Your task to perform on an android device: Clear the shopping cart on walmart. Search for "panasonic triple a" on walmart, select the first entry, add it to the cart, then select checkout. Image 0: 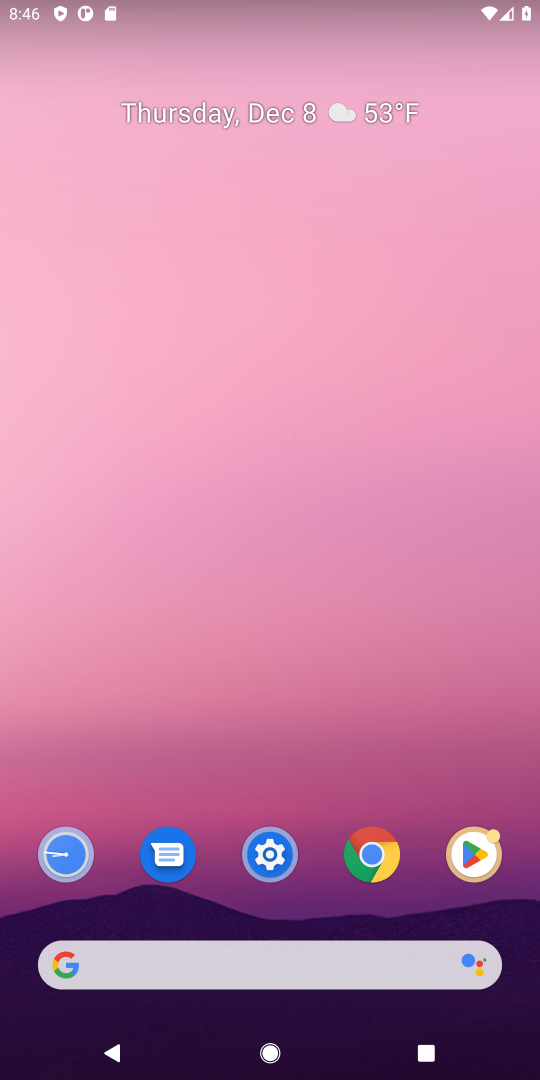
Step 0: press home button
Your task to perform on an android device: Clear the shopping cart on walmart. Search for "panasonic triple a" on walmart, select the first entry, add it to the cart, then select checkout. Image 1: 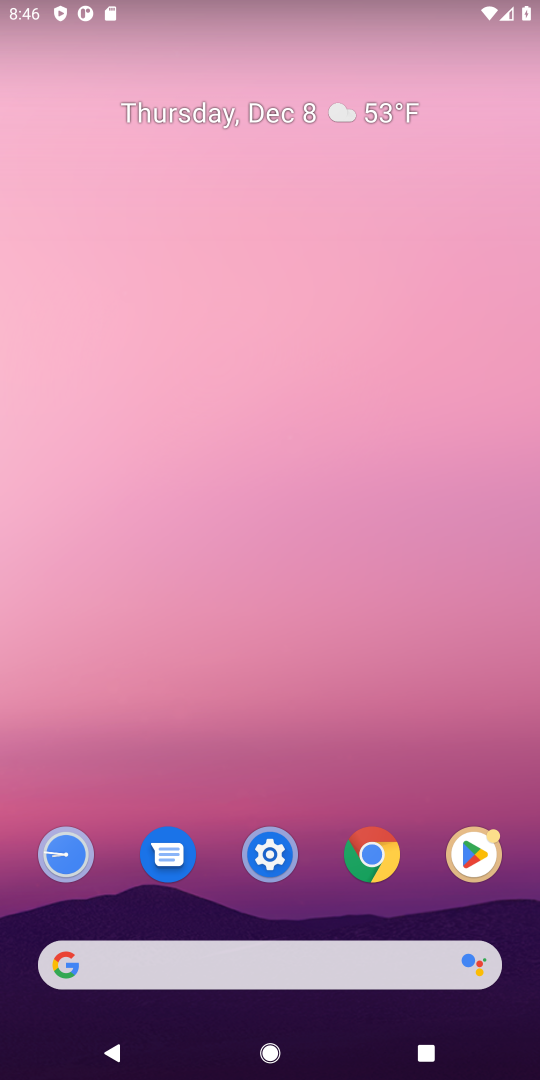
Step 1: click (85, 959)
Your task to perform on an android device: Clear the shopping cart on walmart. Search for "panasonic triple a" on walmart, select the first entry, add it to the cart, then select checkout. Image 2: 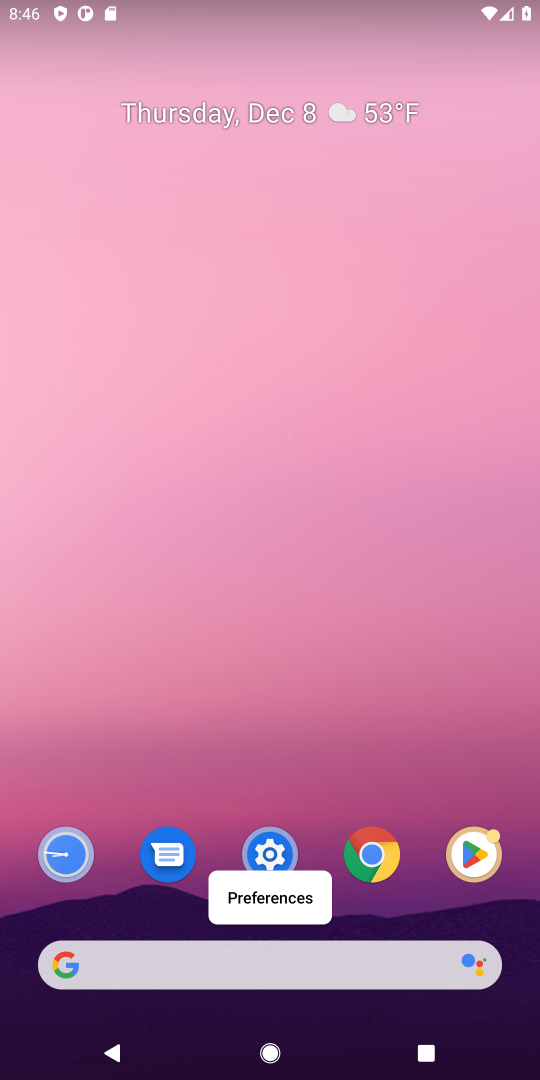
Step 2: click (102, 958)
Your task to perform on an android device: Clear the shopping cart on walmart. Search for "panasonic triple a" on walmart, select the first entry, add it to the cart, then select checkout. Image 3: 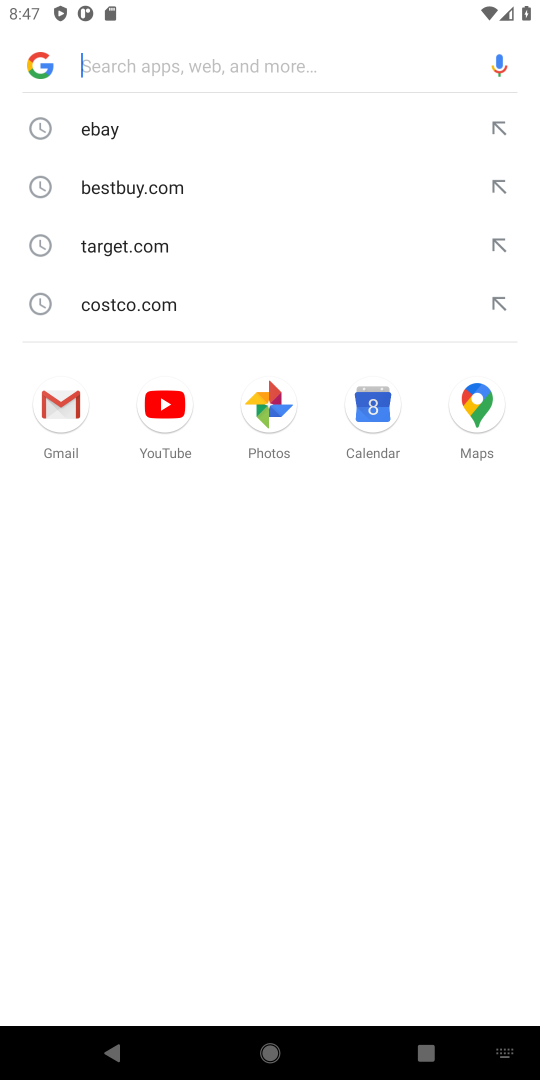
Step 3: press enter
Your task to perform on an android device: Clear the shopping cart on walmart. Search for "panasonic triple a" on walmart, select the first entry, add it to the cart, then select checkout. Image 4: 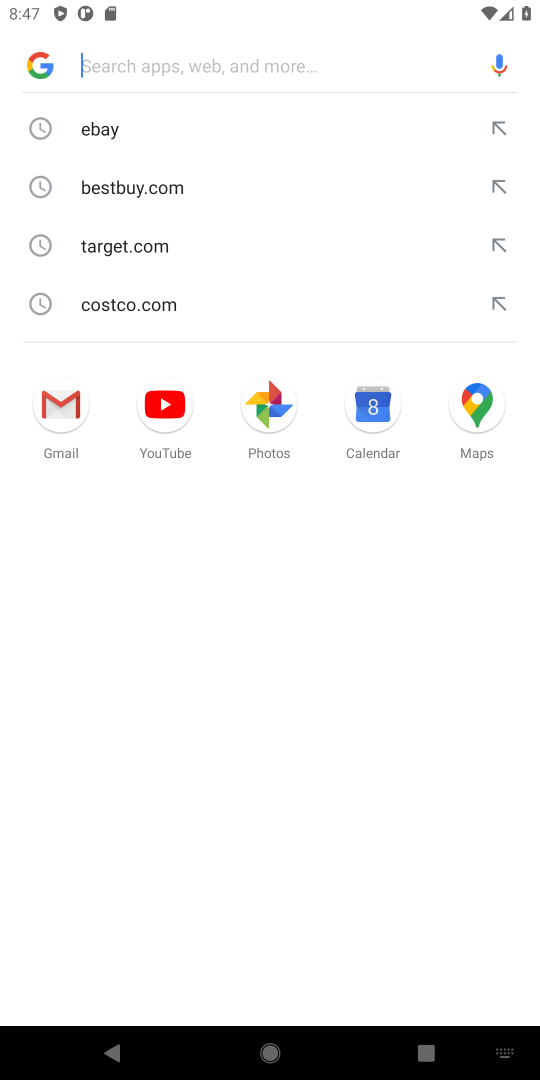
Step 4: type "walmart"
Your task to perform on an android device: Clear the shopping cart on walmart. Search for "panasonic triple a" on walmart, select the first entry, add it to the cart, then select checkout. Image 5: 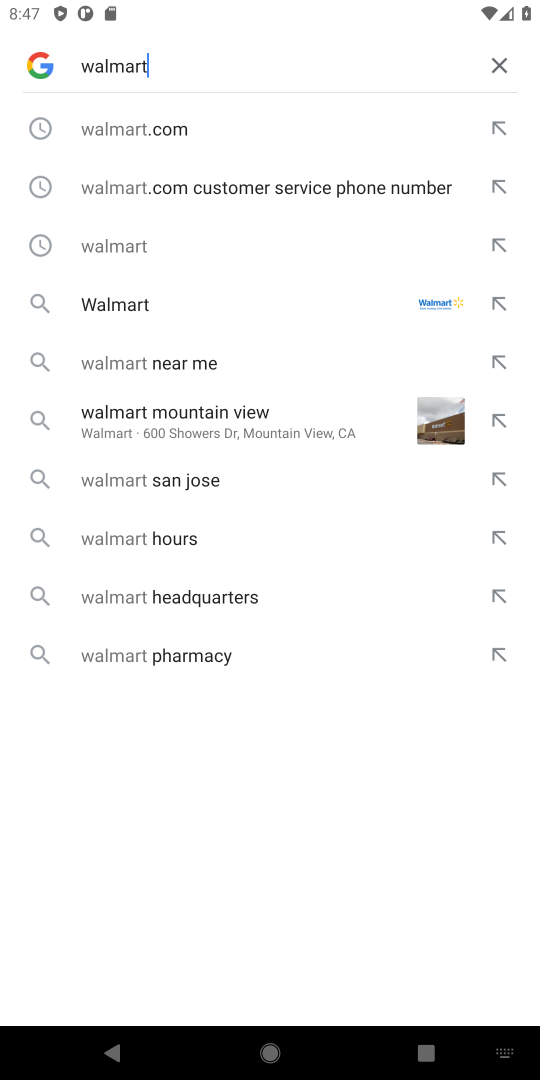
Step 5: press enter
Your task to perform on an android device: Clear the shopping cart on walmart. Search for "panasonic triple a" on walmart, select the first entry, add it to the cart, then select checkout. Image 6: 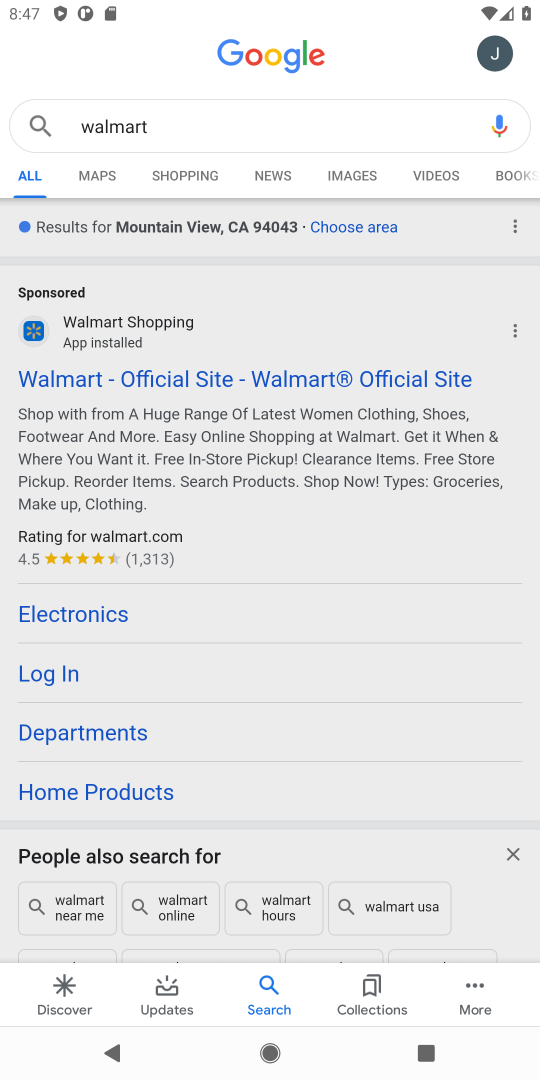
Step 6: click (159, 385)
Your task to perform on an android device: Clear the shopping cart on walmart. Search for "panasonic triple a" on walmart, select the first entry, add it to the cart, then select checkout. Image 7: 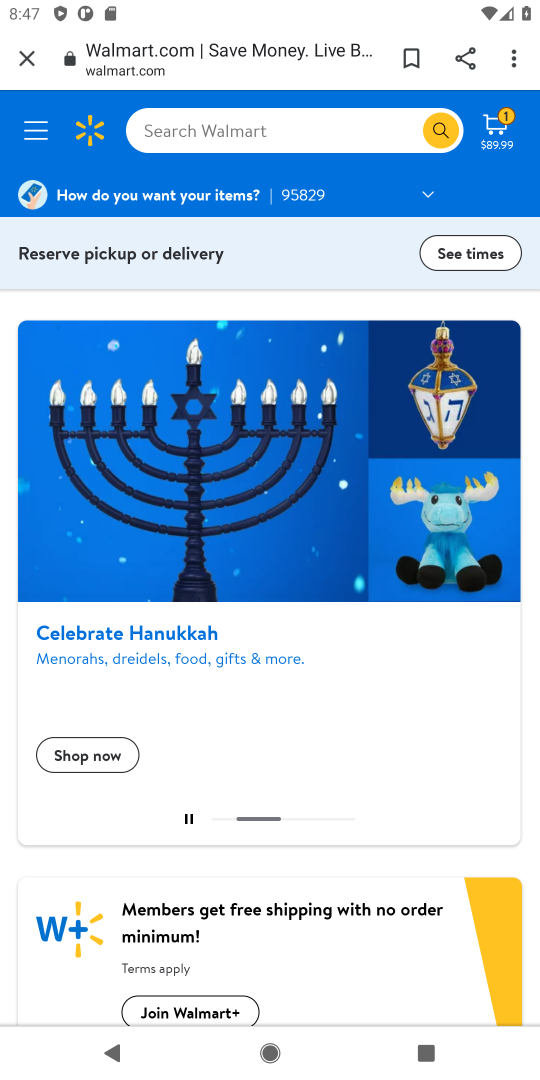
Step 7: click (500, 116)
Your task to perform on an android device: Clear the shopping cart on walmart. Search for "panasonic triple a" on walmart, select the first entry, add it to the cart, then select checkout. Image 8: 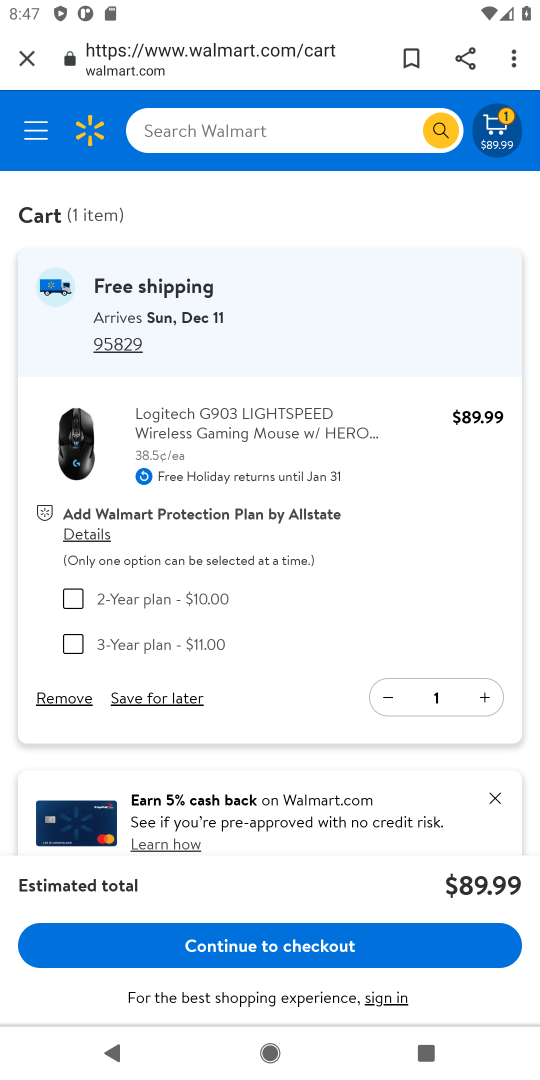
Step 8: click (60, 698)
Your task to perform on an android device: Clear the shopping cart on walmart. Search for "panasonic triple a" on walmart, select the first entry, add it to the cart, then select checkout. Image 9: 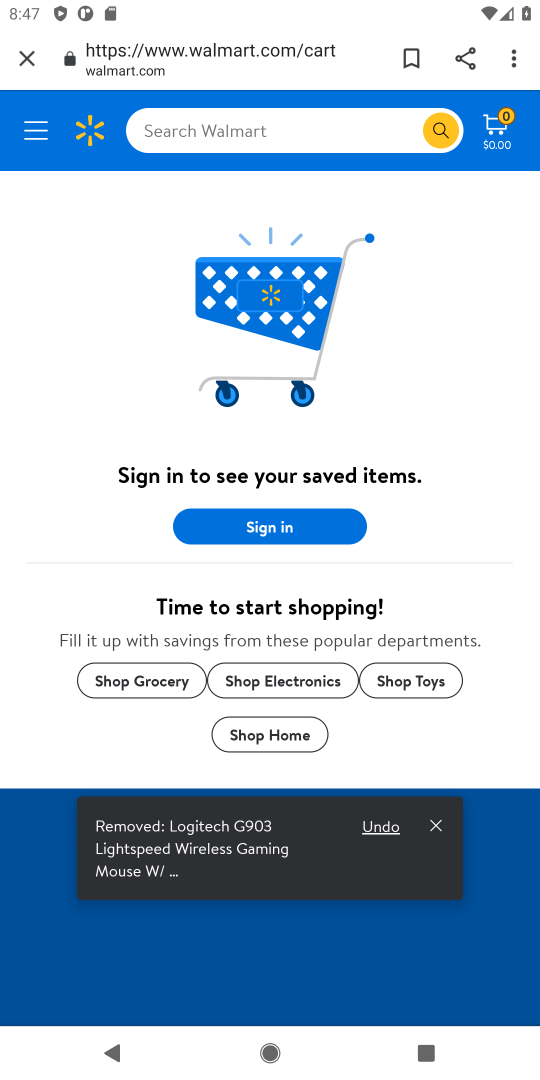
Step 9: click (181, 131)
Your task to perform on an android device: Clear the shopping cart on walmart. Search for "panasonic triple a" on walmart, select the first entry, add it to the cart, then select checkout. Image 10: 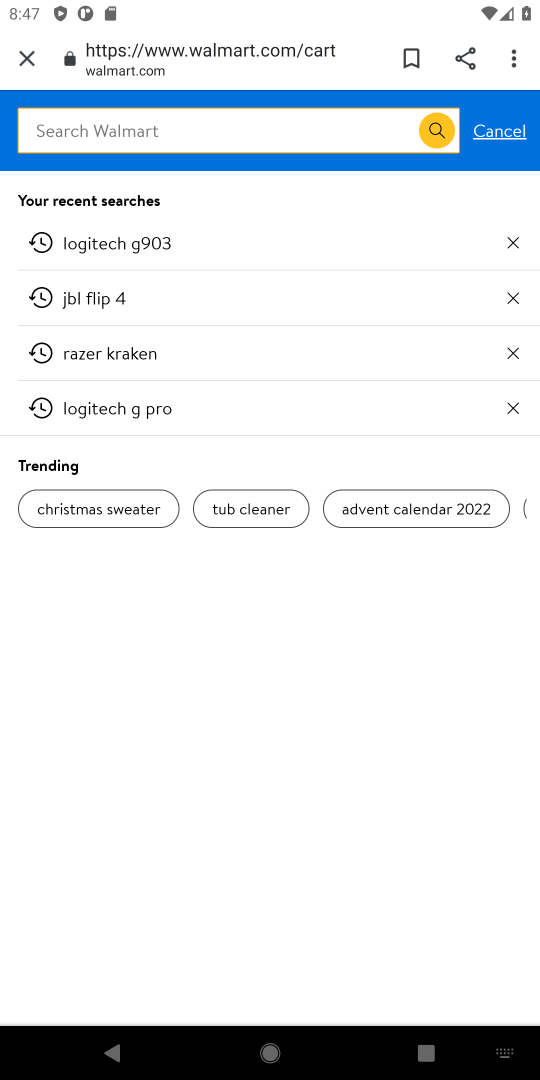
Step 10: type "panasonic triple a""
Your task to perform on an android device: Clear the shopping cart on walmart. Search for "panasonic triple a" on walmart, select the first entry, add it to the cart, then select checkout. Image 11: 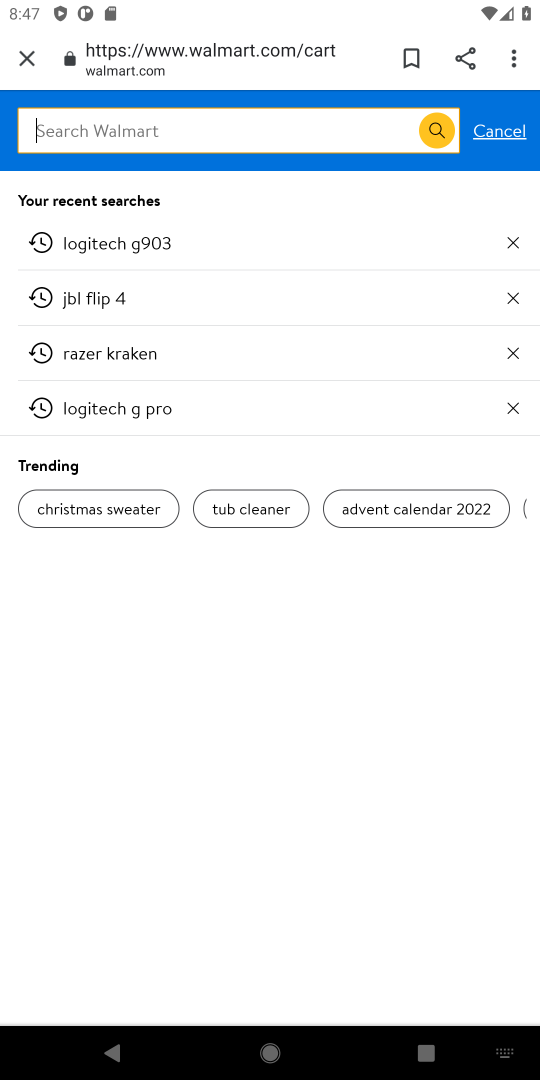
Step 11: press enter
Your task to perform on an android device: Clear the shopping cart on walmart. Search for "panasonic triple a" on walmart, select the first entry, add it to the cart, then select checkout. Image 12: 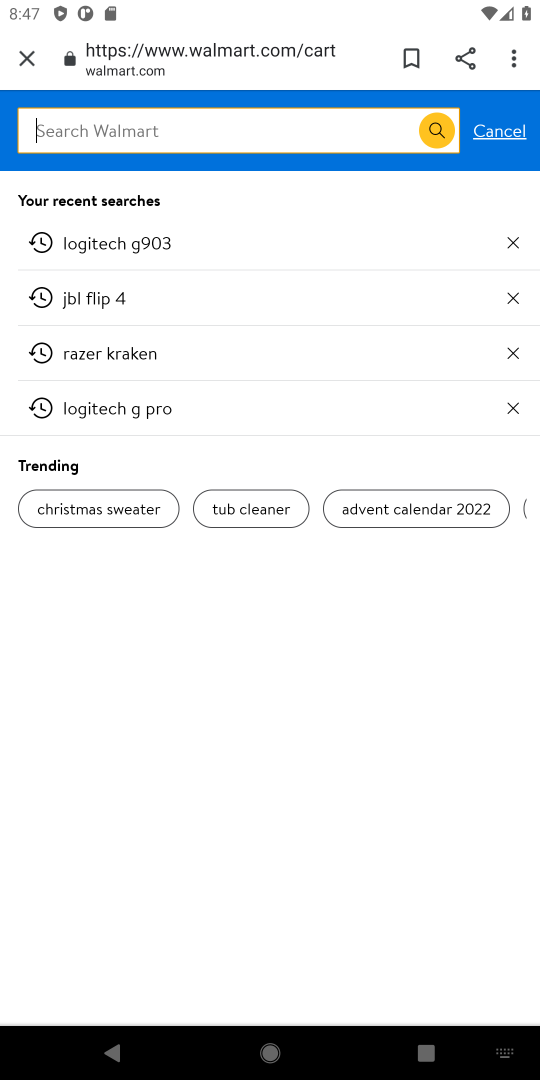
Step 12: press enter
Your task to perform on an android device: Clear the shopping cart on walmart. Search for "panasonic triple a" on walmart, select the first entry, add it to the cart, then select checkout. Image 13: 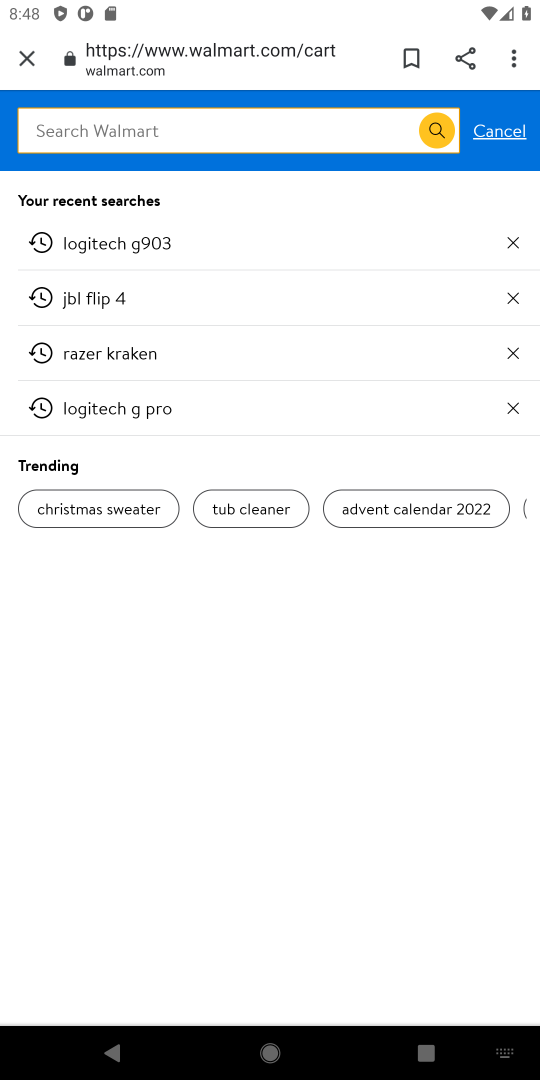
Step 13: type "panasonic triple a""
Your task to perform on an android device: Clear the shopping cart on walmart. Search for "panasonic triple a" on walmart, select the first entry, add it to the cart, then select checkout. Image 14: 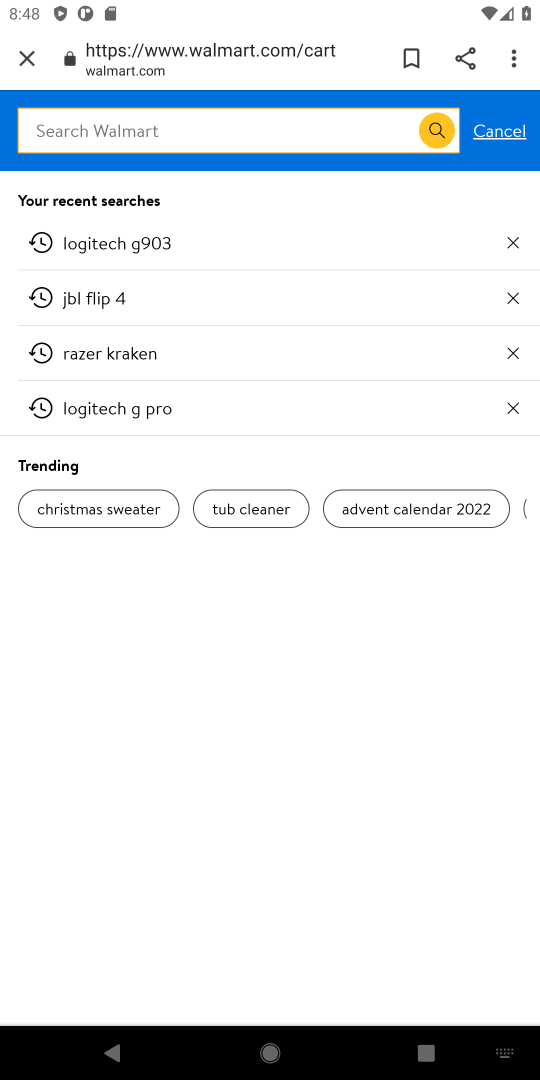
Step 14: task complete